Your task to perform on an android device: Check the weather Image 0: 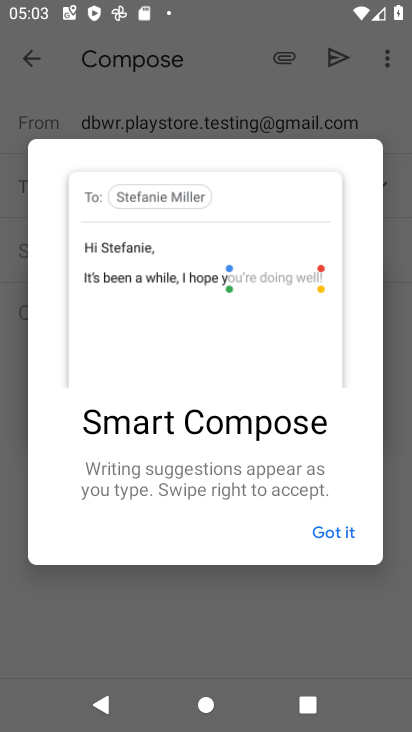
Step 0: press home button
Your task to perform on an android device: Check the weather Image 1: 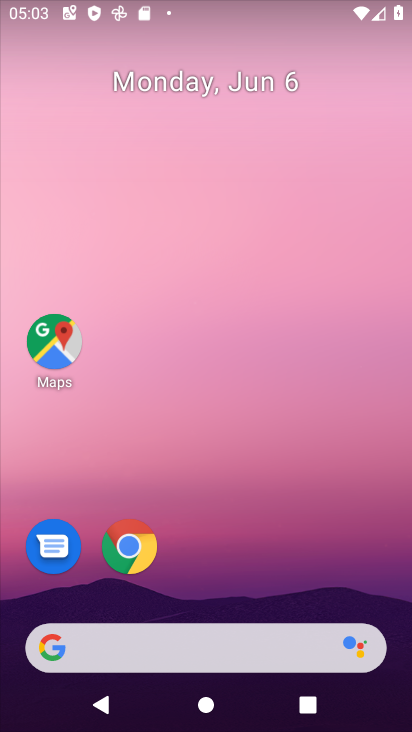
Step 1: click (209, 643)
Your task to perform on an android device: Check the weather Image 2: 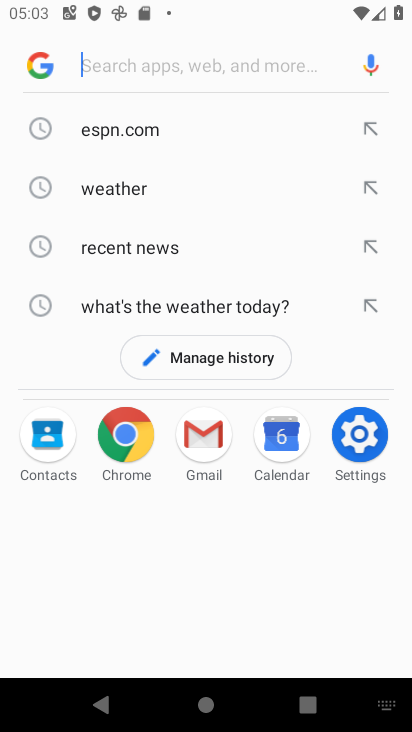
Step 2: click (165, 188)
Your task to perform on an android device: Check the weather Image 3: 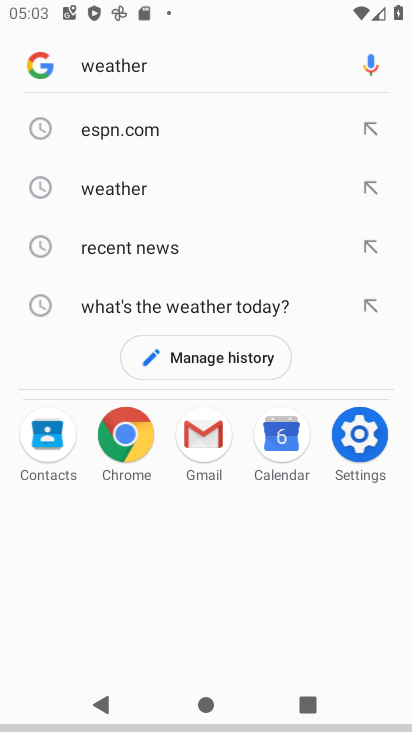
Step 3: task complete